Your task to perform on an android device: change timer sound Image 0: 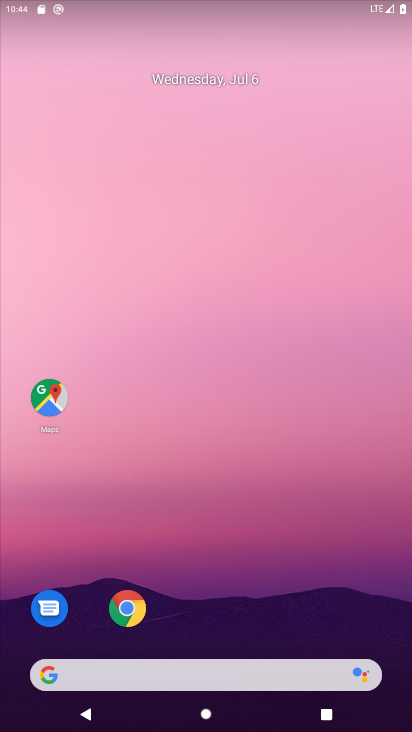
Step 0: drag from (226, 261) to (278, 38)
Your task to perform on an android device: change timer sound Image 1: 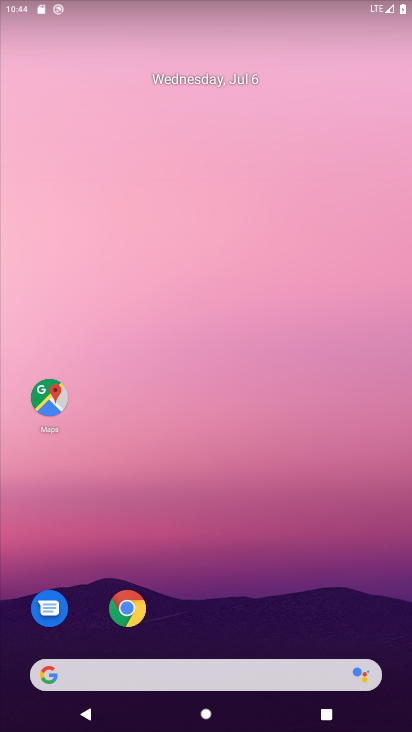
Step 1: drag from (277, 621) to (410, 0)
Your task to perform on an android device: change timer sound Image 2: 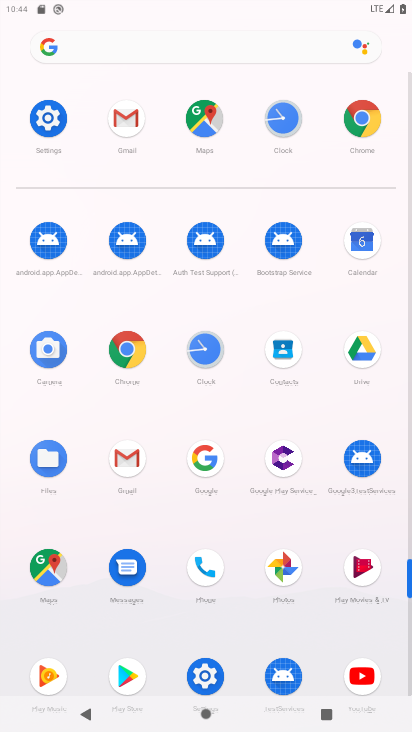
Step 2: click (209, 351)
Your task to perform on an android device: change timer sound Image 3: 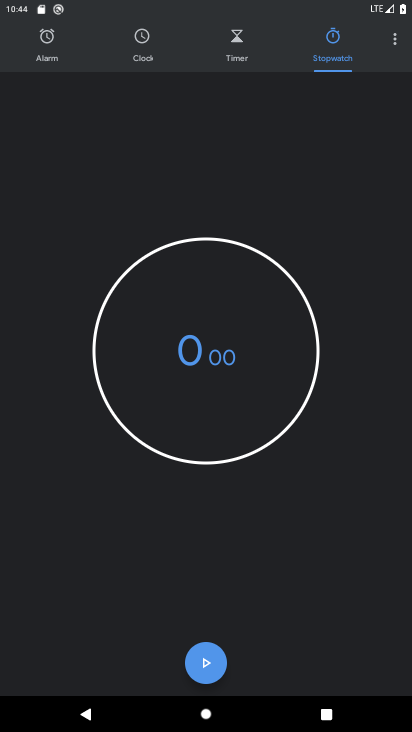
Step 3: click (399, 55)
Your task to perform on an android device: change timer sound Image 4: 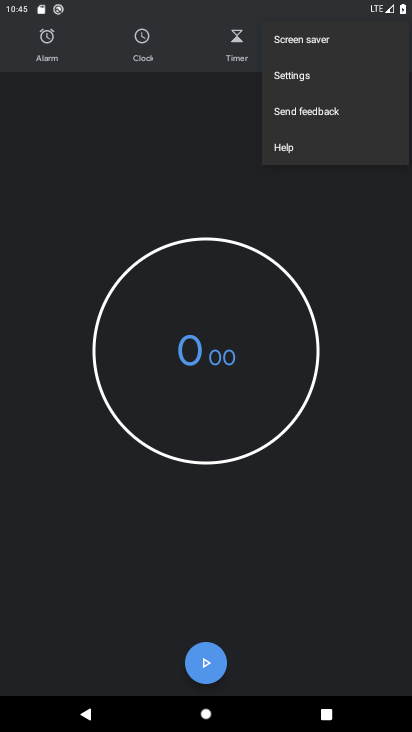
Step 4: click (292, 73)
Your task to perform on an android device: change timer sound Image 5: 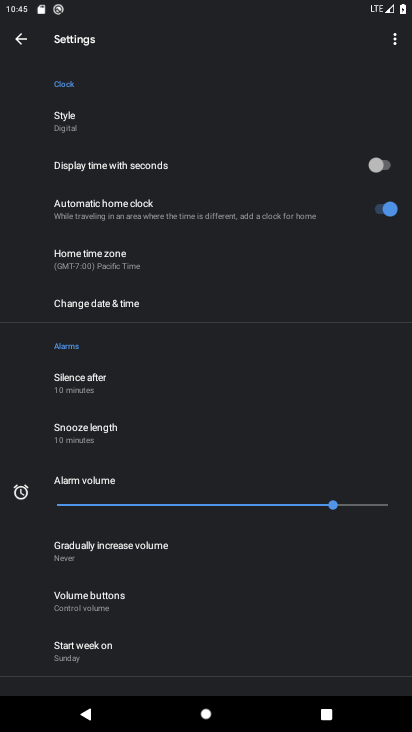
Step 5: drag from (110, 604) to (193, 227)
Your task to perform on an android device: change timer sound Image 6: 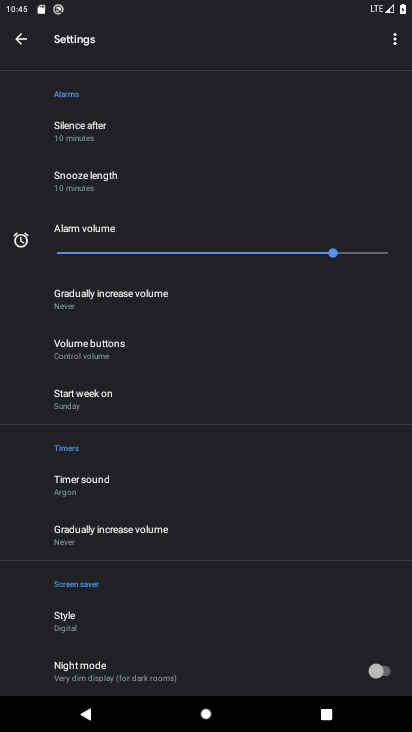
Step 6: click (100, 481)
Your task to perform on an android device: change timer sound Image 7: 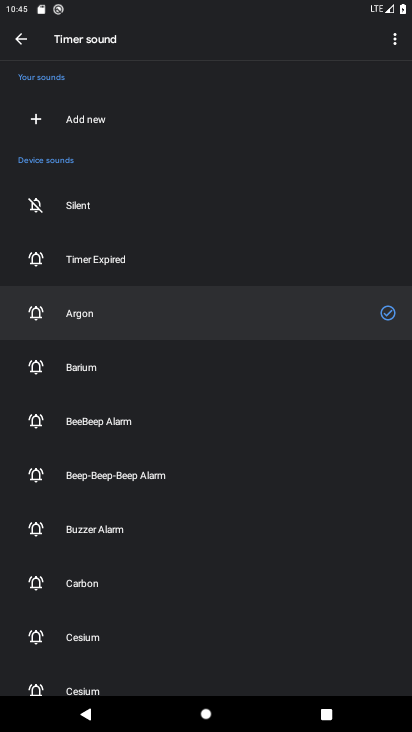
Step 7: click (86, 368)
Your task to perform on an android device: change timer sound Image 8: 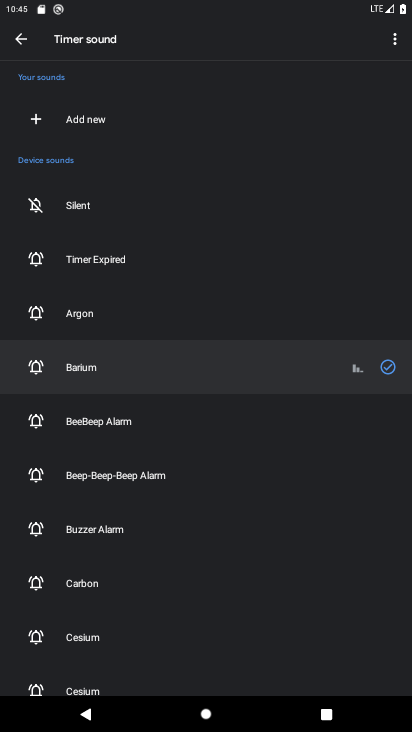
Step 8: task complete